Your task to perform on an android device: turn off translation in the chrome app Image 0: 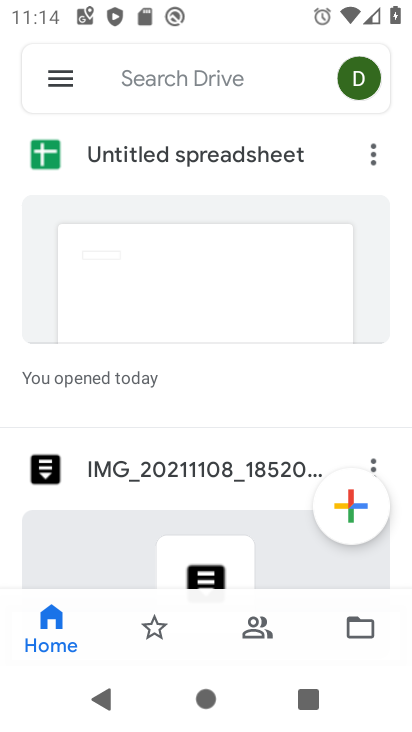
Step 0: press home button
Your task to perform on an android device: turn off translation in the chrome app Image 1: 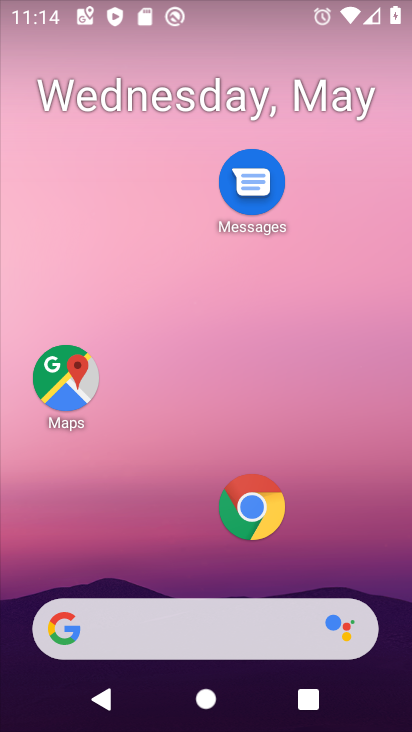
Step 1: click (251, 498)
Your task to perform on an android device: turn off translation in the chrome app Image 2: 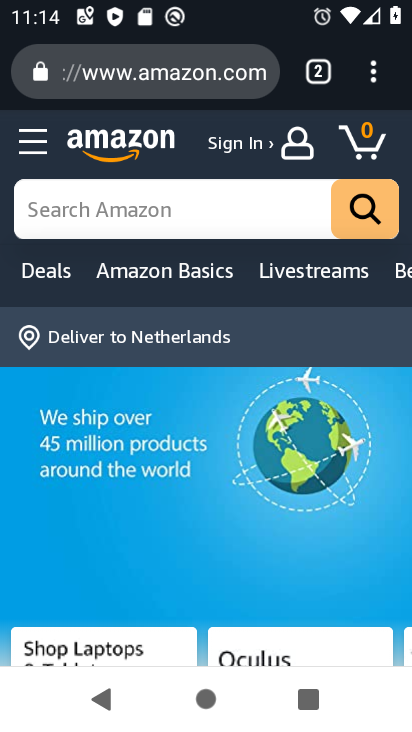
Step 2: click (373, 68)
Your task to perform on an android device: turn off translation in the chrome app Image 3: 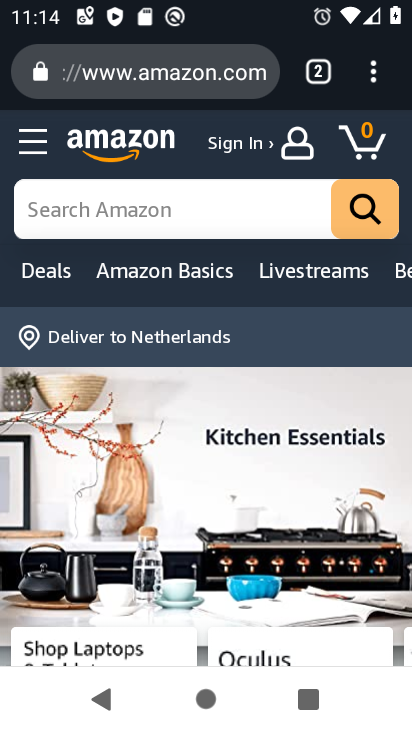
Step 3: click (373, 71)
Your task to perform on an android device: turn off translation in the chrome app Image 4: 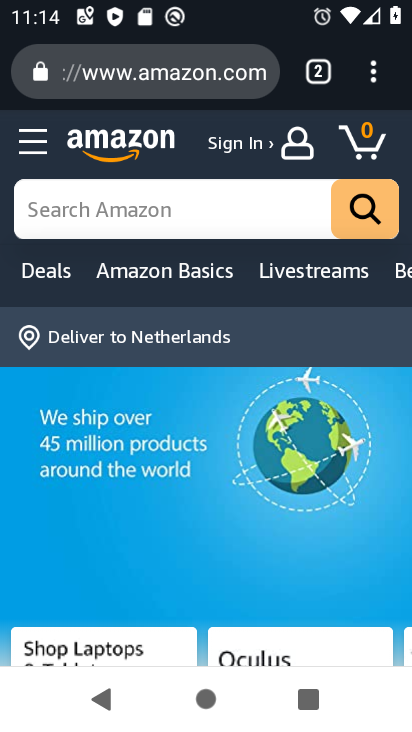
Step 4: click (375, 75)
Your task to perform on an android device: turn off translation in the chrome app Image 5: 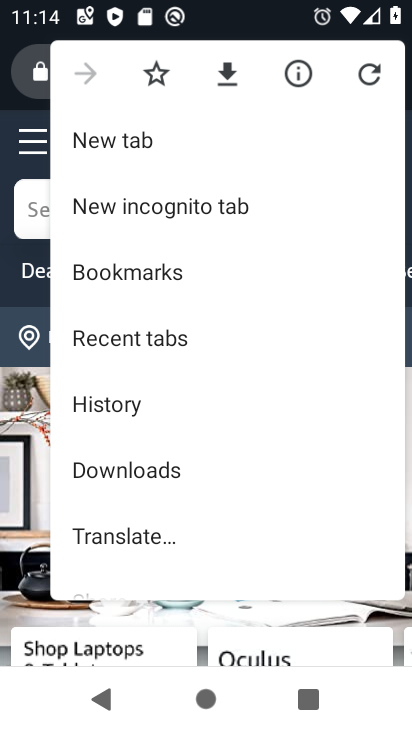
Step 5: drag from (178, 534) to (270, 228)
Your task to perform on an android device: turn off translation in the chrome app Image 6: 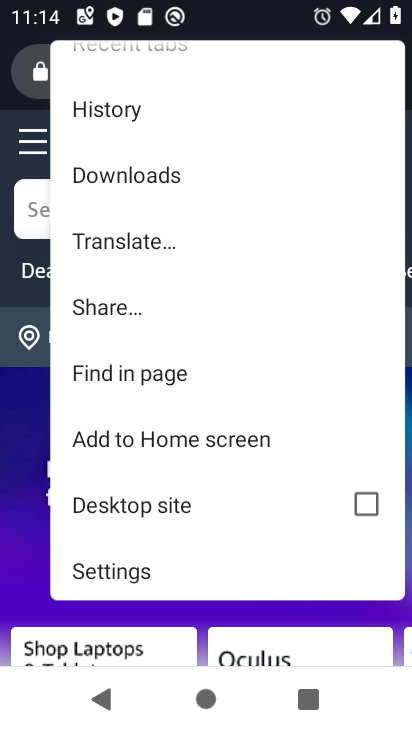
Step 6: click (165, 562)
Your task to perform on an android device: turn off translation in the chrome app Image 7: 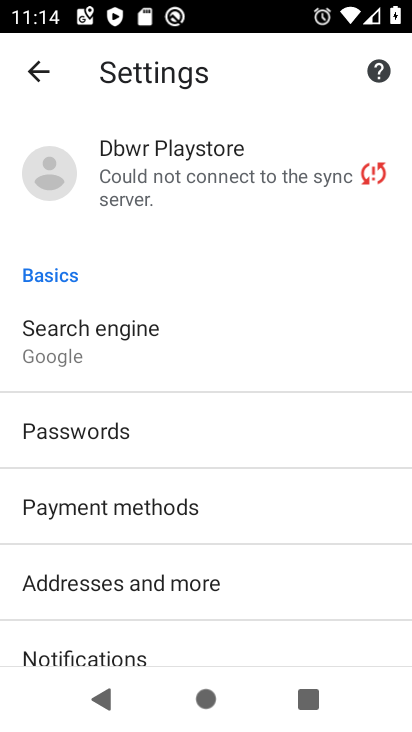
Step 7: drag from (192, 598) to (249, 144)
Your task to perform on an android device: turn off translation in the chrome app Image 8: 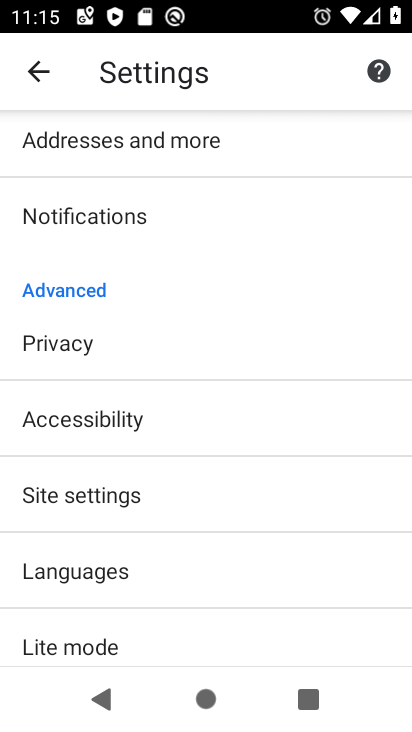
Step 8: drag from (161, 593) to (189, 471)
Your task to perform on an android device: turn off translation in the chrome app Image 9: 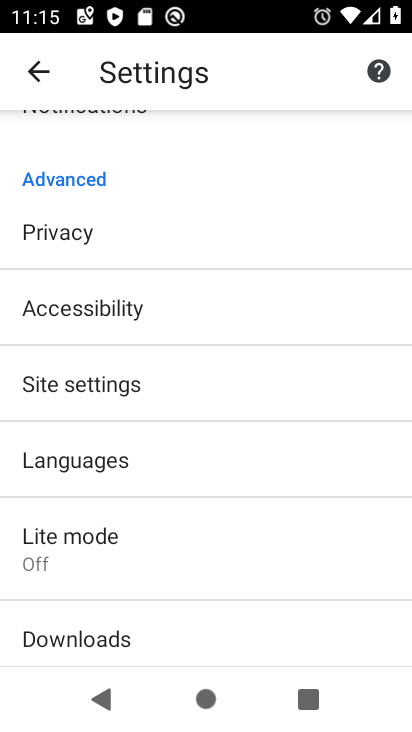
Step 9: click (150, 455)
Your task to perform on an android device: turn off translation in the chrome app Image 10: 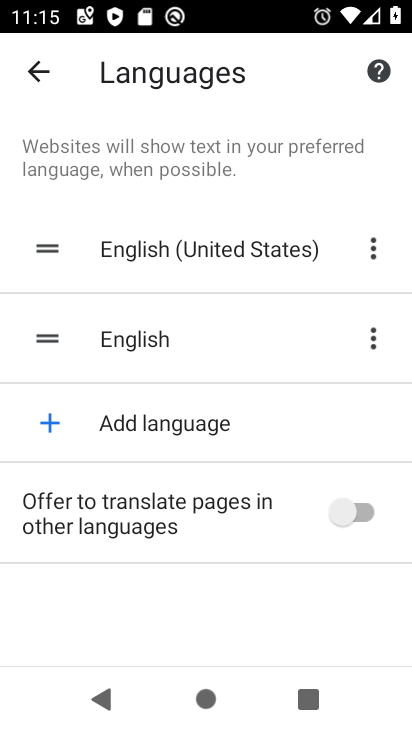
Step 10: task complete